Your task to perform on an android device: Toggle the flashlight Image 0: 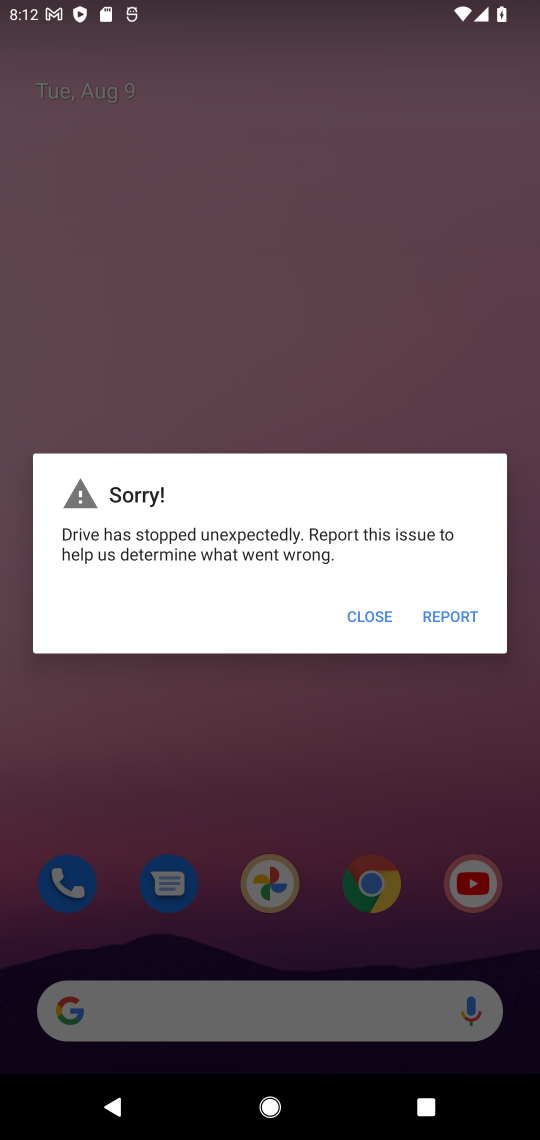
Step 0: press home button
Your task to perform on an android device: Toggle the flashlight Image 1: 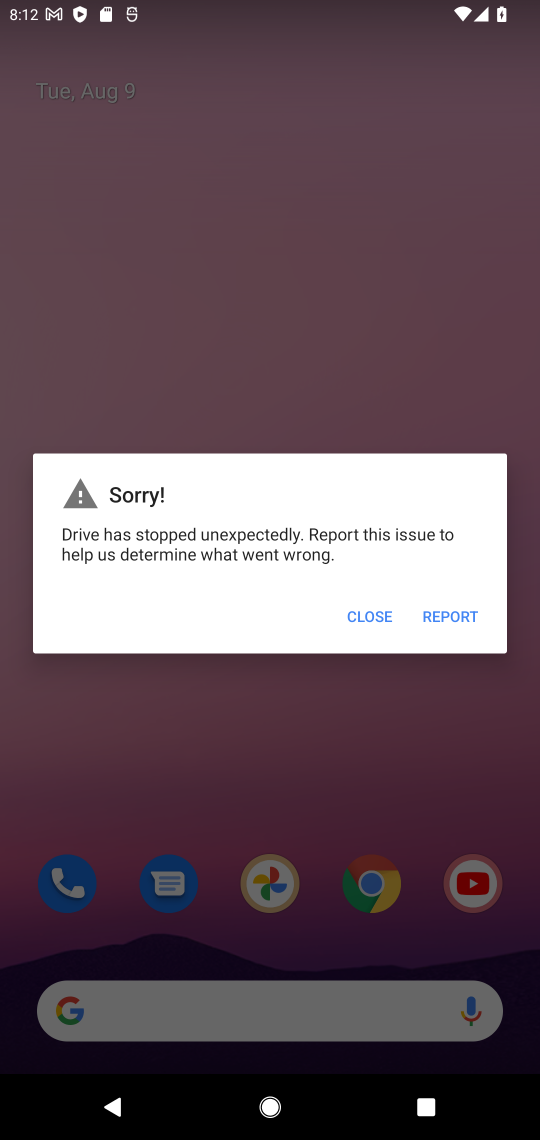
Step 1: press home button
Your task to perform on an android device: Toggle the flashlight Image 2: 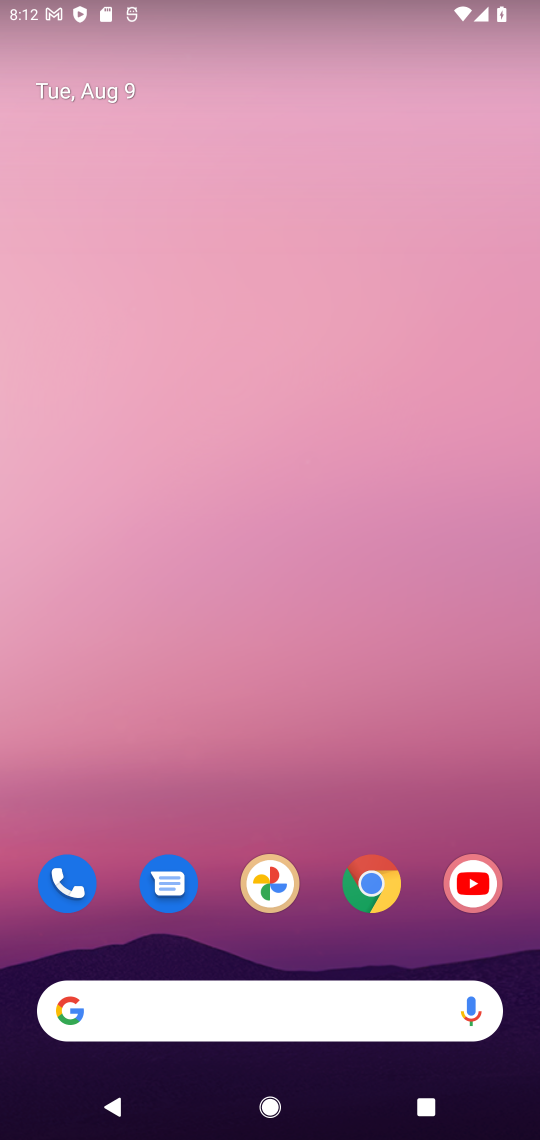
Step 2: press home button
Your task to perform on an android device: Toggle the flashlight Image 3: 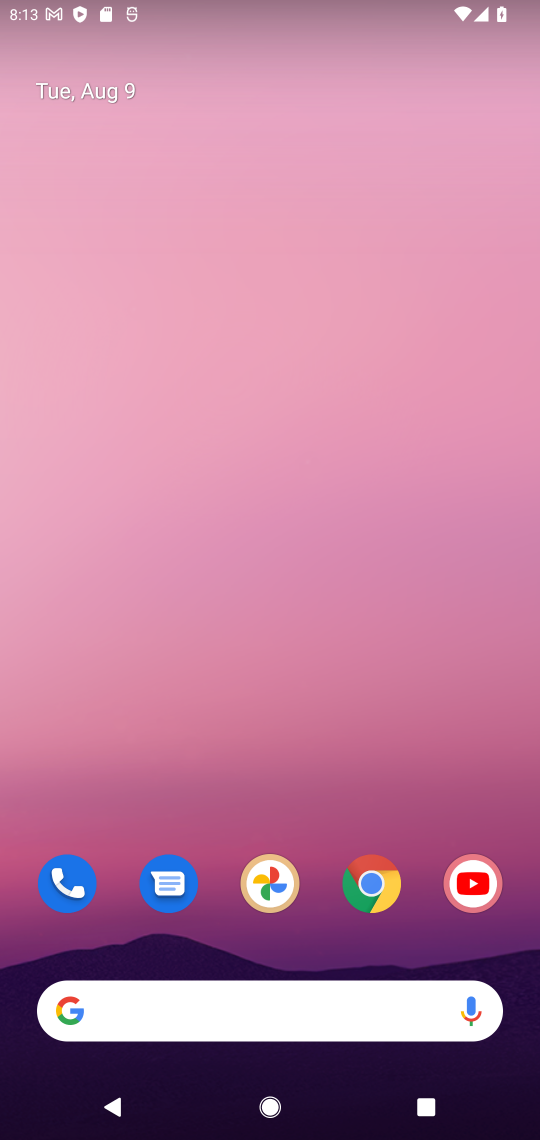
Step 3: drag from (229, 716) to (296, 93)
Your task to perform on an android device: Toggle the flashlight Image 4: 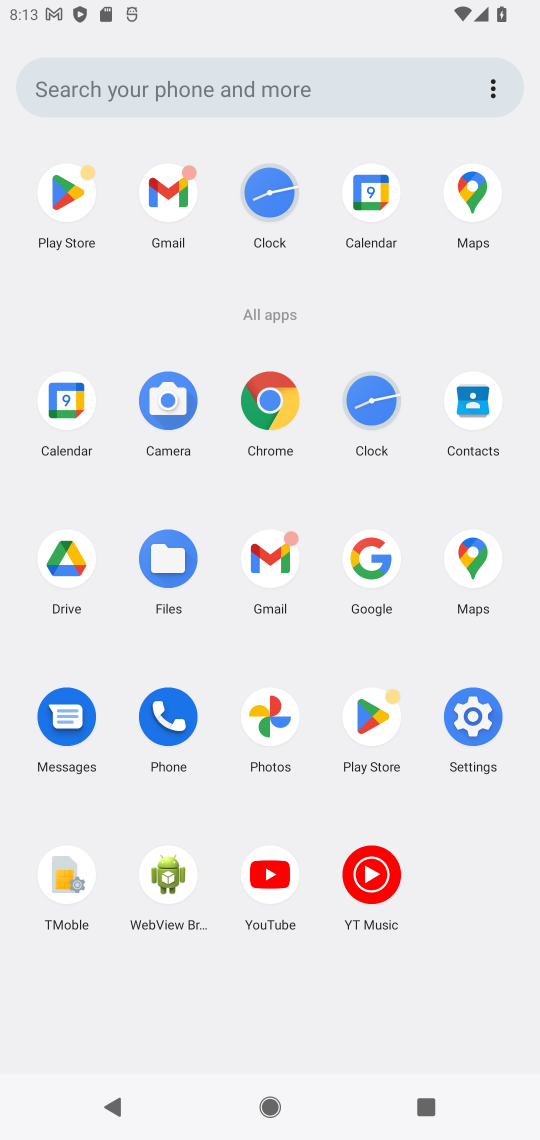
Step 4: click (467, 704)
Your task to perform on an android device: Toggle the flashlight Image 5: 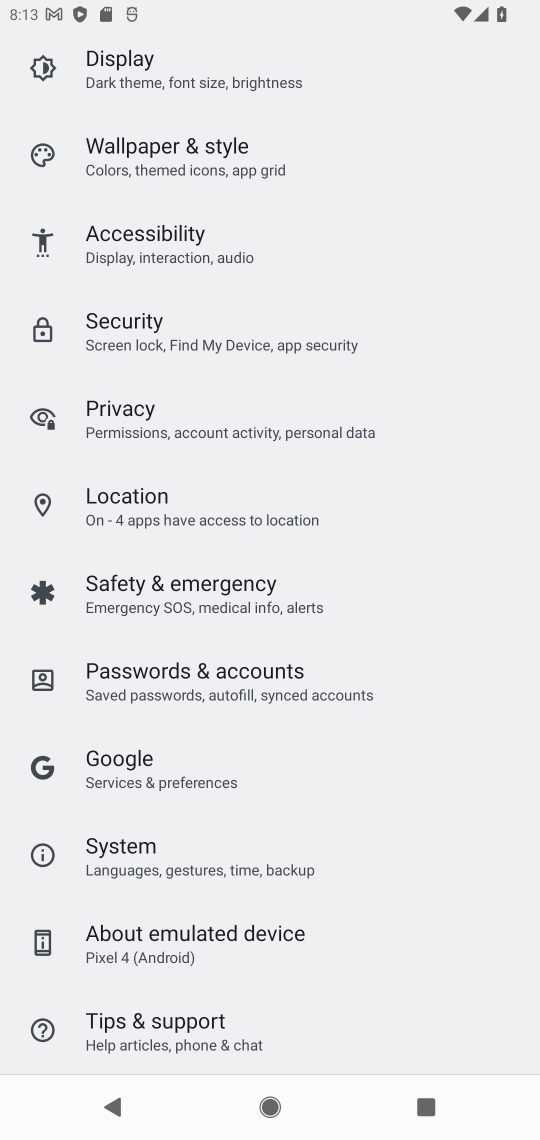
Step 5: click (249, 65)
Your task to perform on an android device: Toggle the flashlight Image 6: 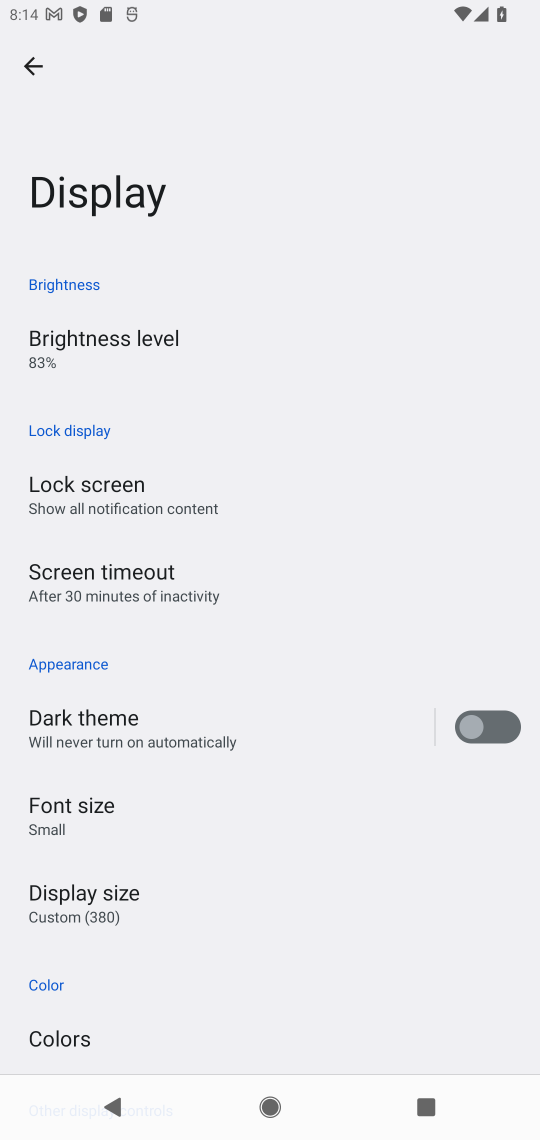
Step 6: click (97, 593)
Your task to perform on an android device: Toggle the flashlight Image 7: 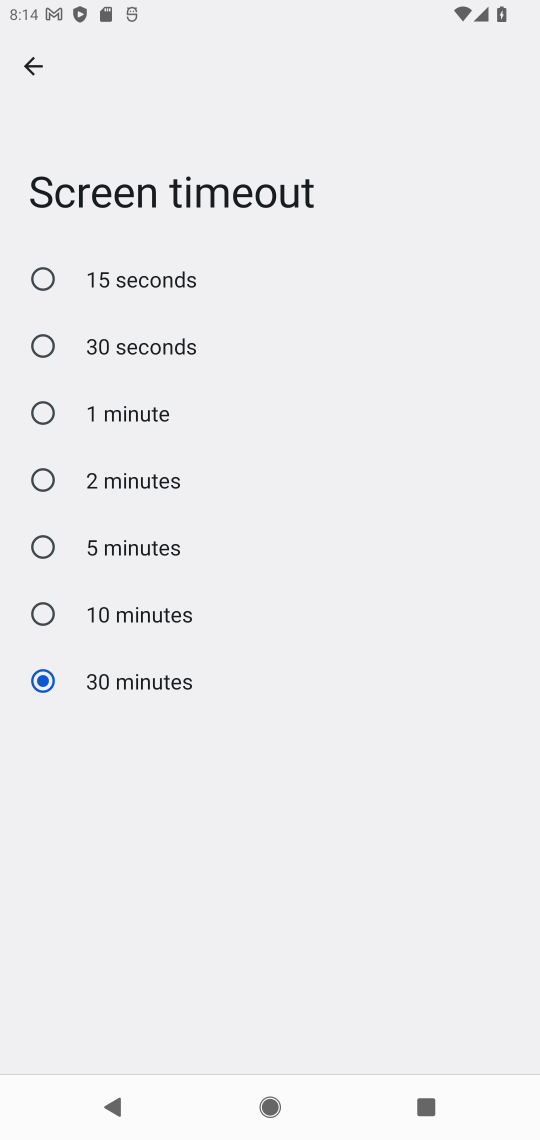
Step 7: task complete